Your task to perform on an android device: What's on my calendar today? Image 0: 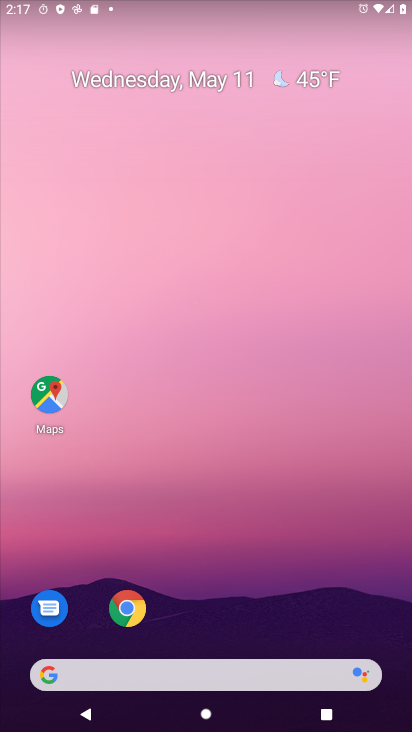
Step 0: drag from (219, 602) to (255, 106)
Your task to perform on an android device: What's on my calendar today? Image 1: 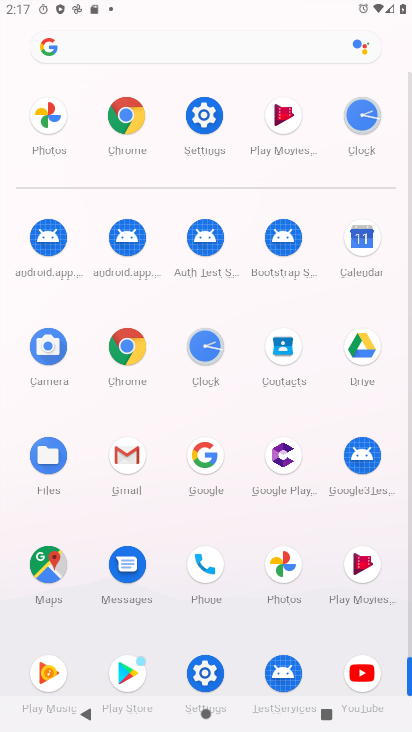
Step 1: click (363, 237)
Your task to perform on an android device: What's on my calendar today? Image 2: 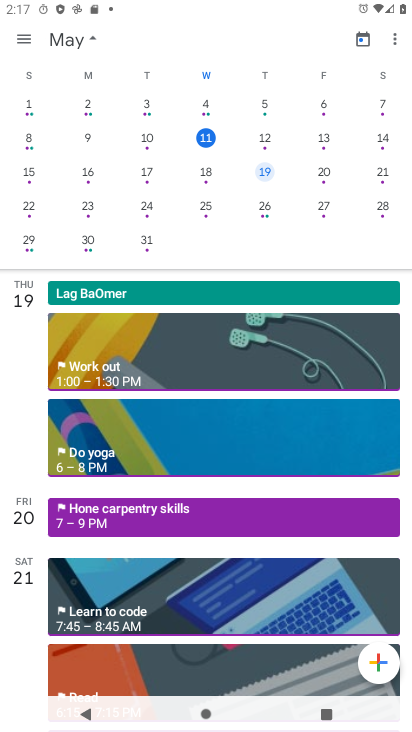
Step 2: click (209, 137)
Your task to perform on an android device: What's on my calendar today? Image 3: 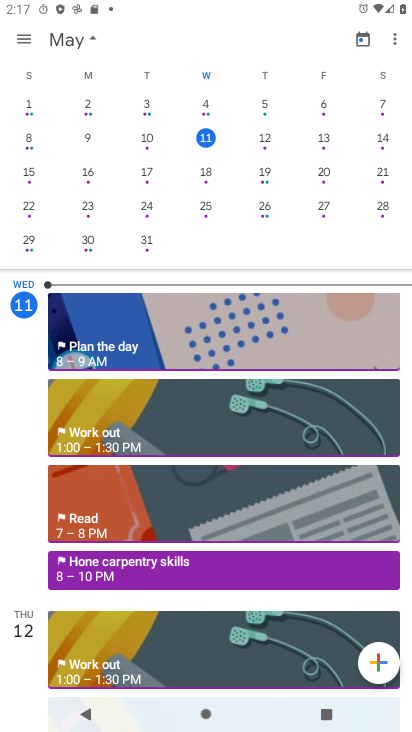
Step 3: task complete